Your task to perform on an android device: Toggle the flashlight Image 0: 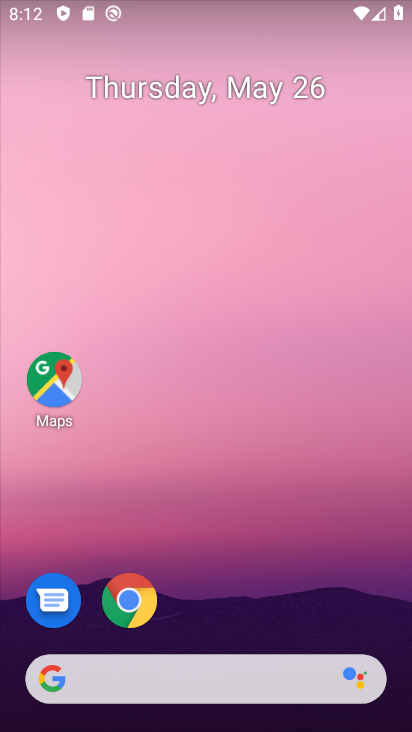
Step 0: drag from (236, 610) to (221, 107)
Your task to perform on an android device: Toggle the flashlight Image 1: 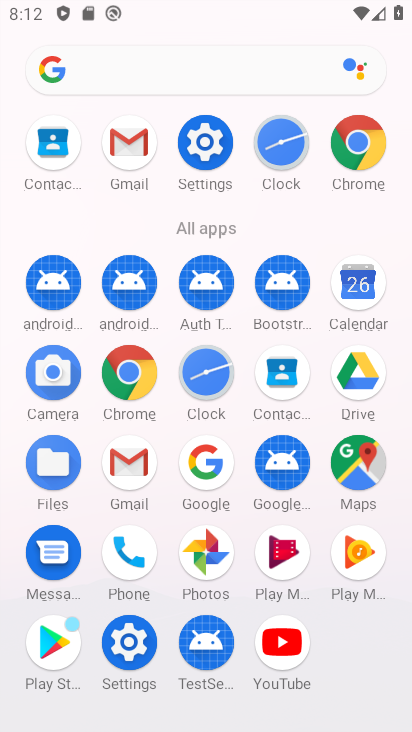
Step 1: click (207, 147)
Your task to perform on an android device: Toggle the flashlight Image 2: 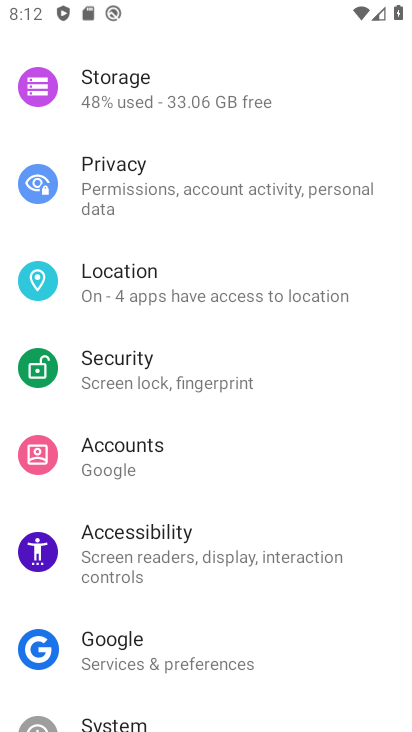
Step 2: task complete